Your task to perform on an android device: Open Reddit.com Image 0: 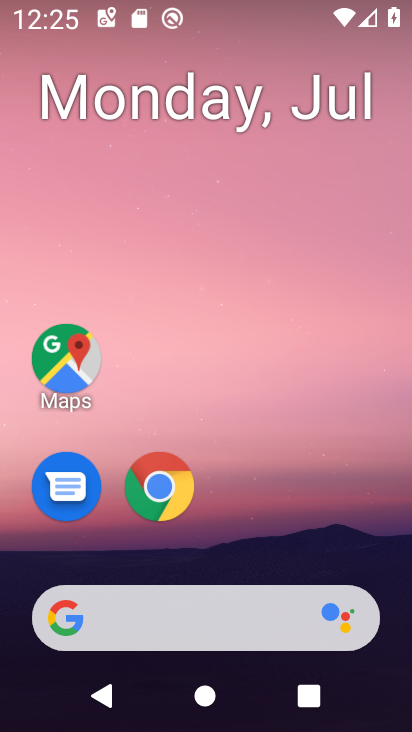
Step 0: press home button
Your task to perform on an android device: Open Reddit.com Image 1: 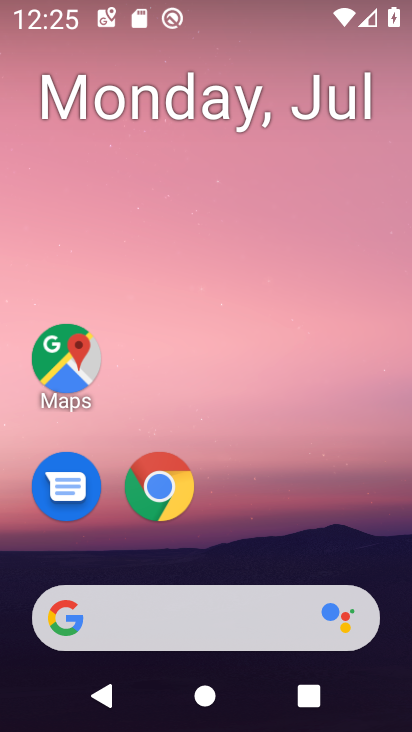
Step 1: drag from (367, 548) to (364, 123)
Your task to perform on an android device: Open Reddit.com Image 2: 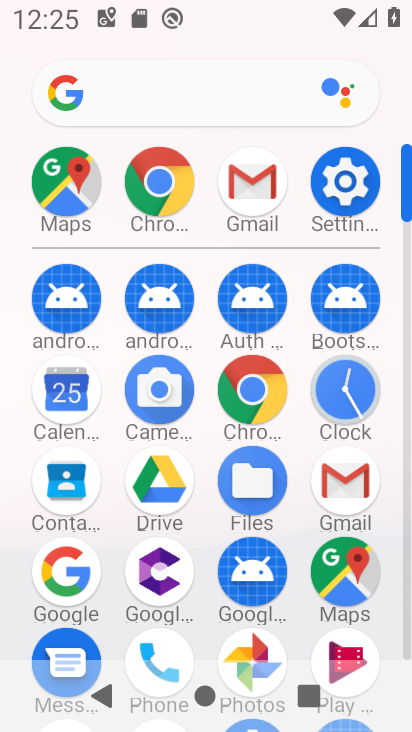
Step 2: click (266, 390)
Your task to perform on an android device: Open Reddit.com Image 3: 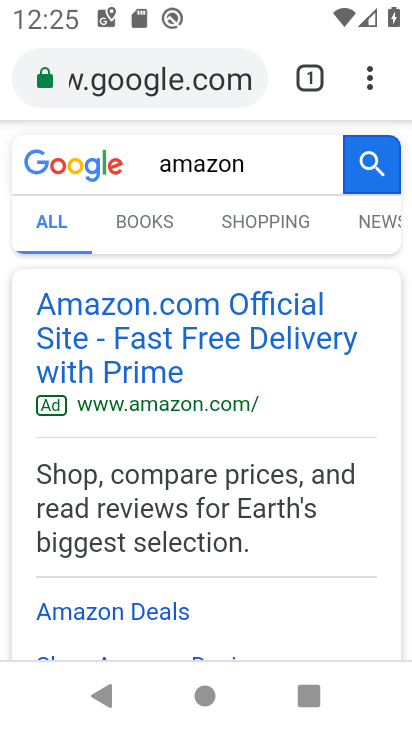
Step 3: click (210, 86)
Your task to perform on an android device: Open Reddit.com Image 4: 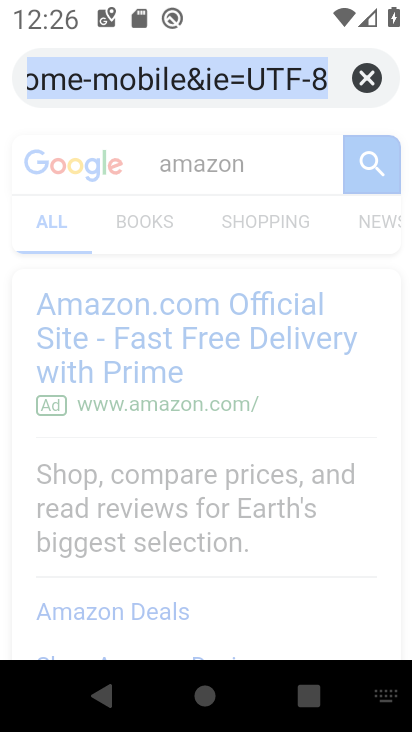
Step 4: type "reddit.com"
Your task to perform on an android device: Open Reddit.com Image 5: 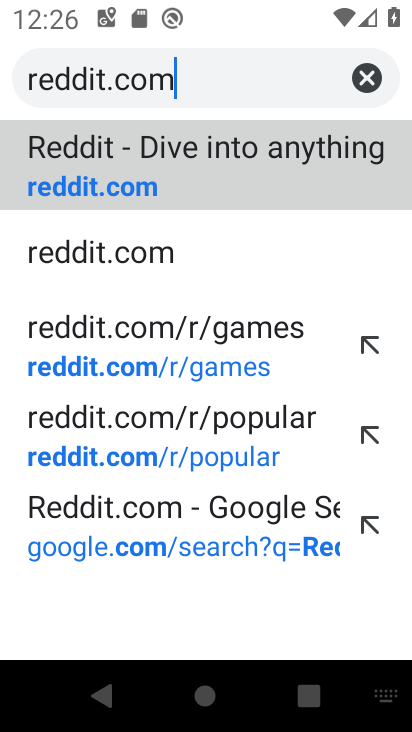
Step 5: click (277, 179)
Your task to perform on an android device: Open Reddit.com Image 6: 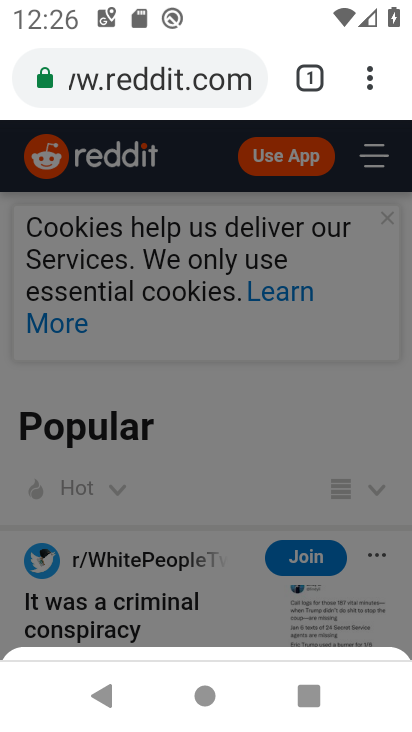
Step 6: task complete